Your task to perform on an android device: open the mobile data screen to see how much data has been used Image 0: 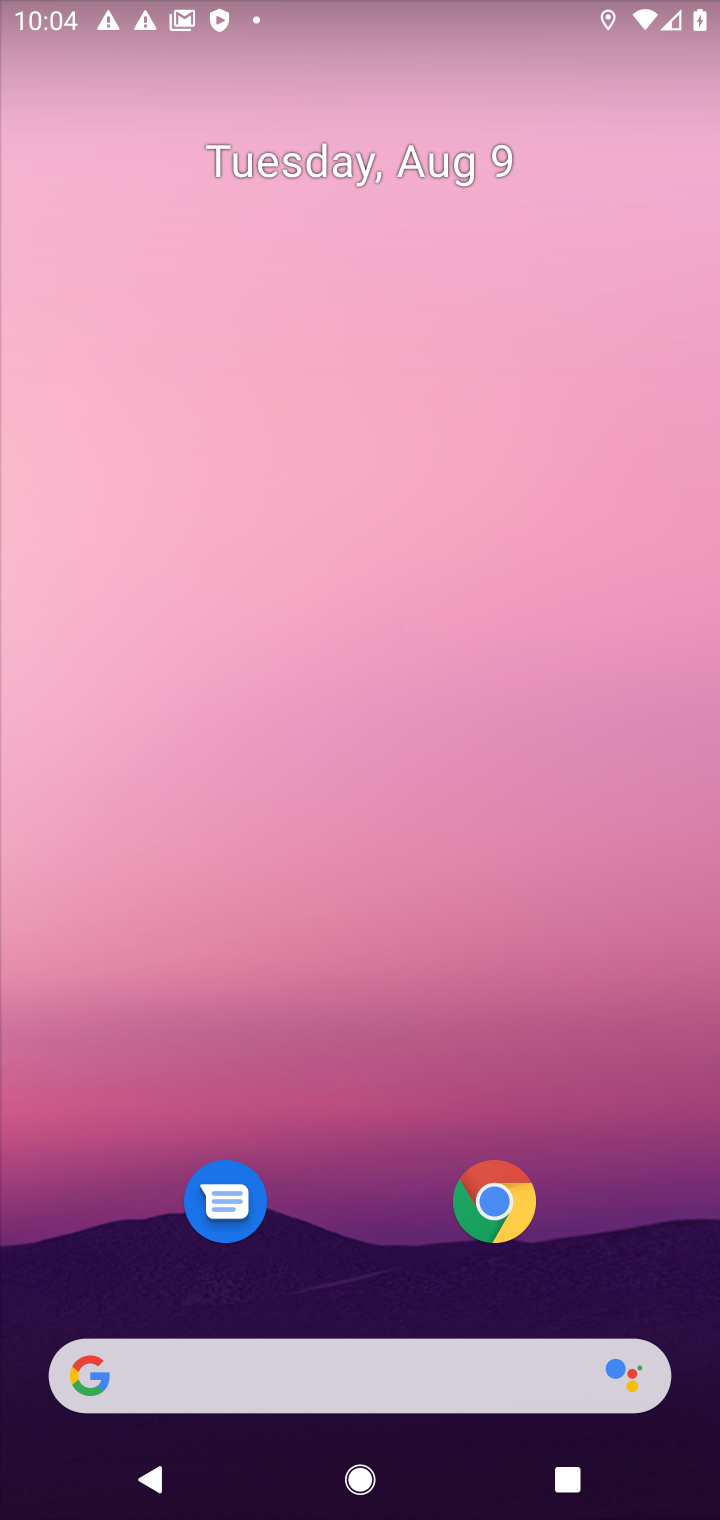
Step 0: drag from (388, 1192) to (407, 534)
Your task to perform on an android device: open the mobile data screen to see how much data has been used Image 1: 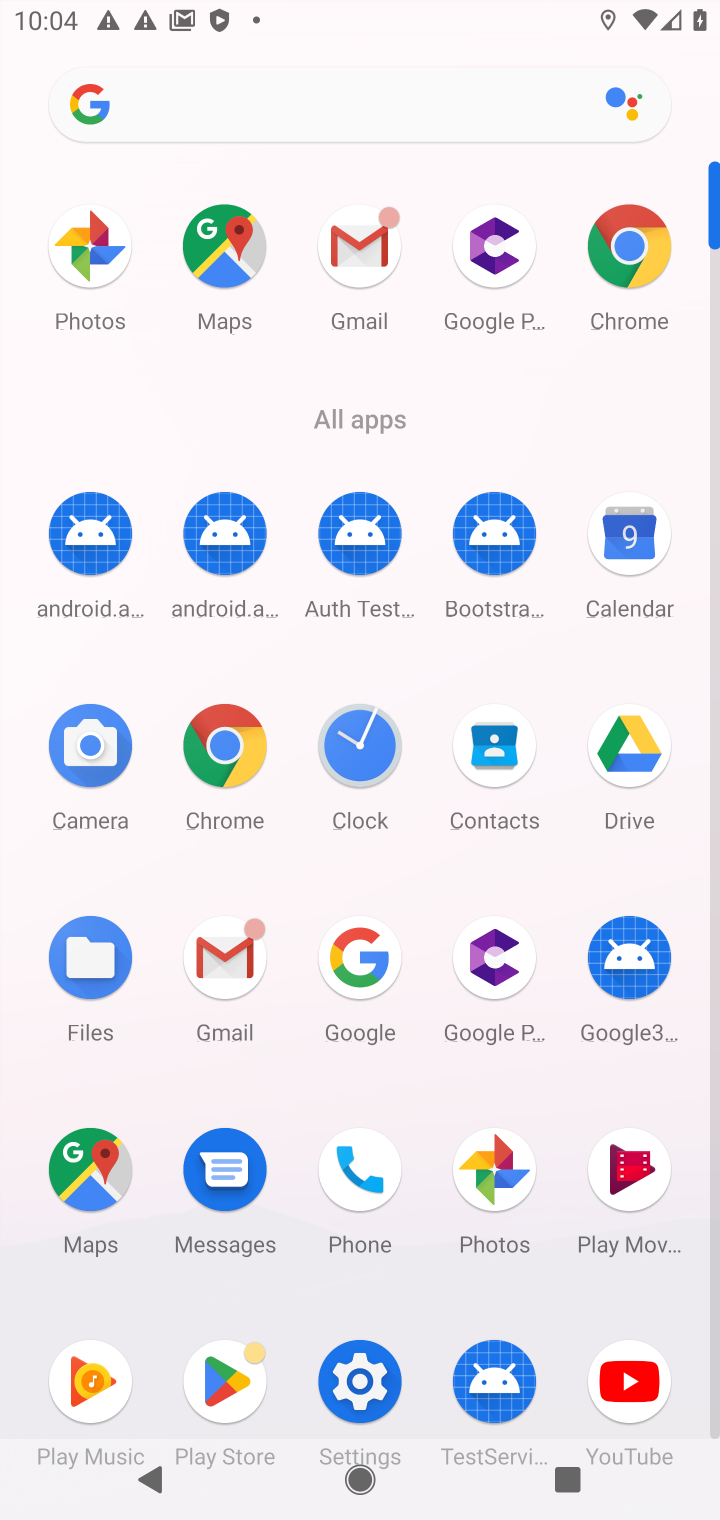
Step 1: click (366, 1372)
Your task to perform on an android device: open the mobile data screen to see how much data has been used Image 2: 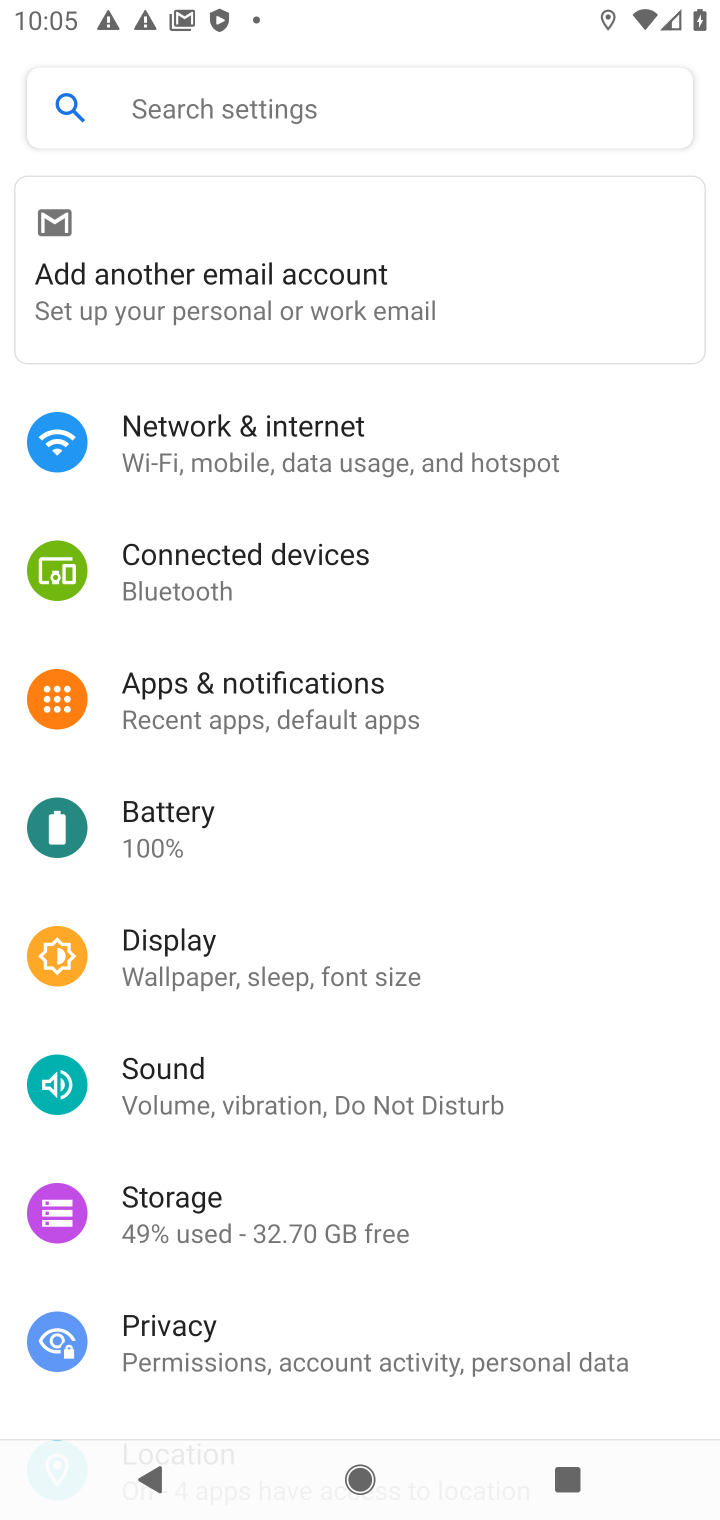
Step 2: click (301, 442)
Your task to perform on an android device: open the mobile data screen to see how much data has been used Image 3: 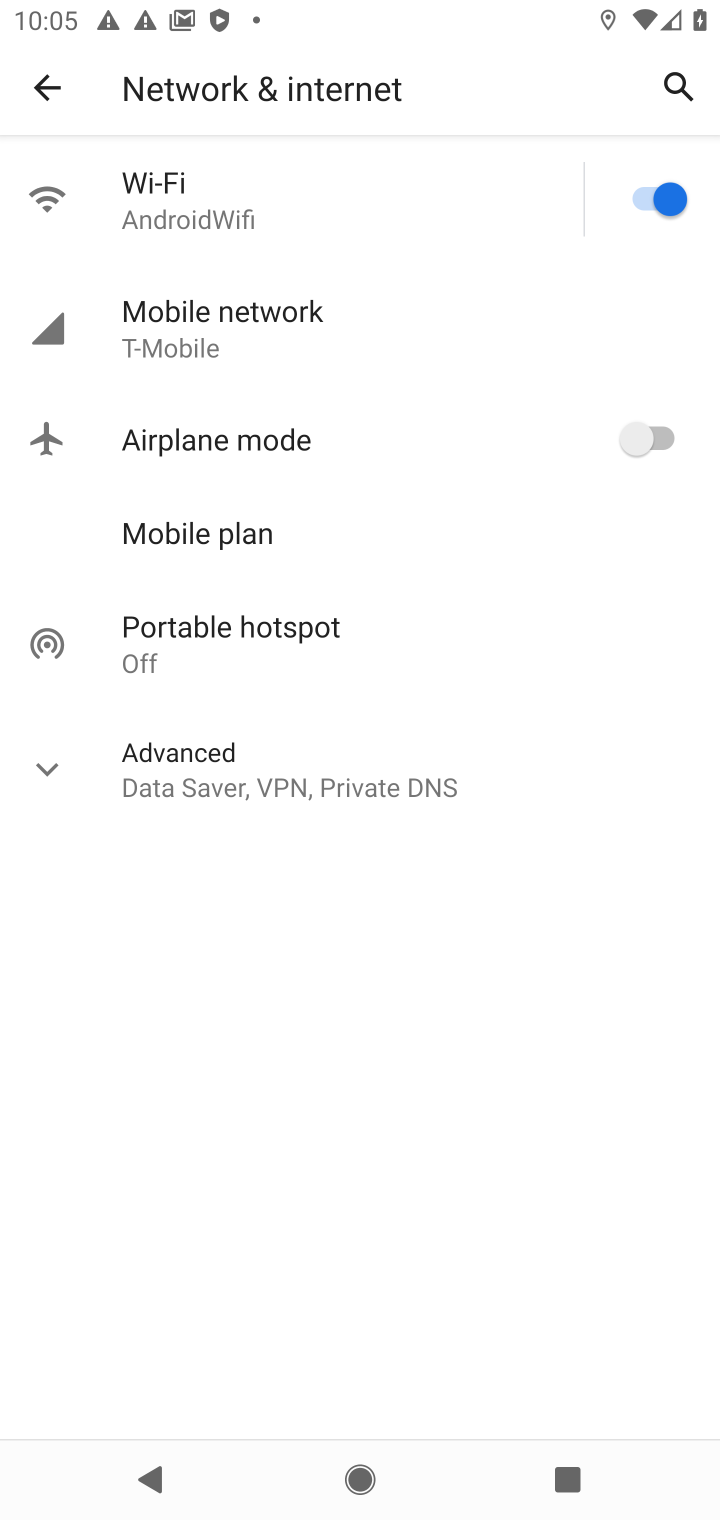
Step 3: task complete